Your task to perform on an android device: empty trash in google photos Image 0: 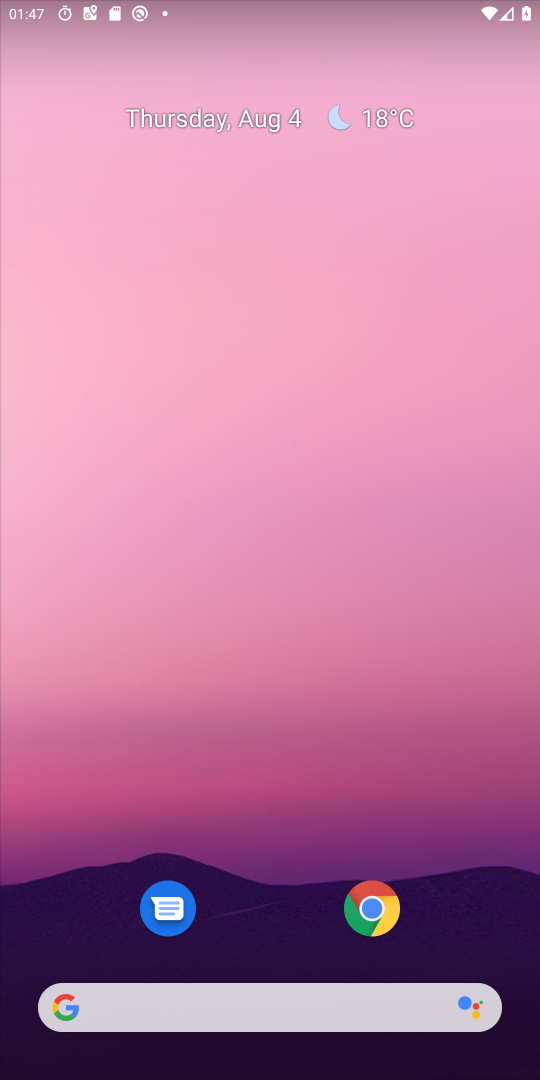
Step 0: press home button
Your task to perform on an android device: empty trash in google photos Image 1: 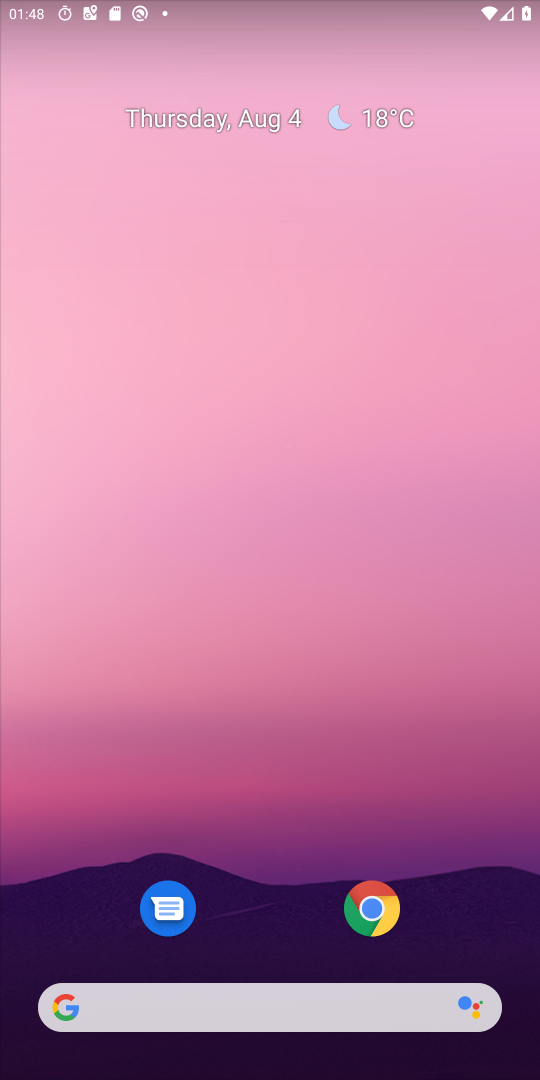
Step 1: drag from (355, 1019) to (358, 219)
Your task to perform on an android device: empty trash in google photos Image 2: 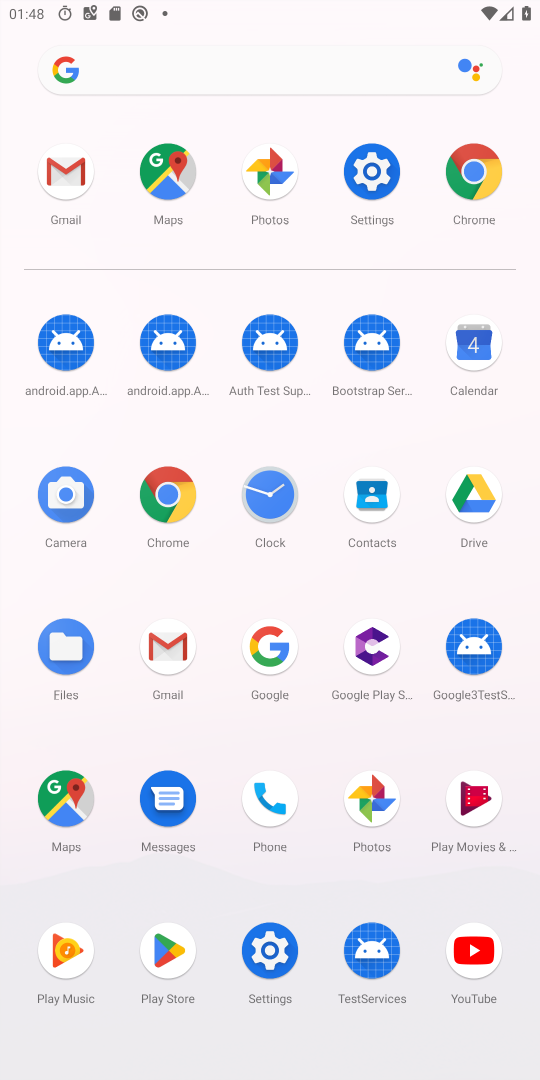
Step 2: click (376, 821)
Your task to perform on an android device: empty trash in google photos Image 3: 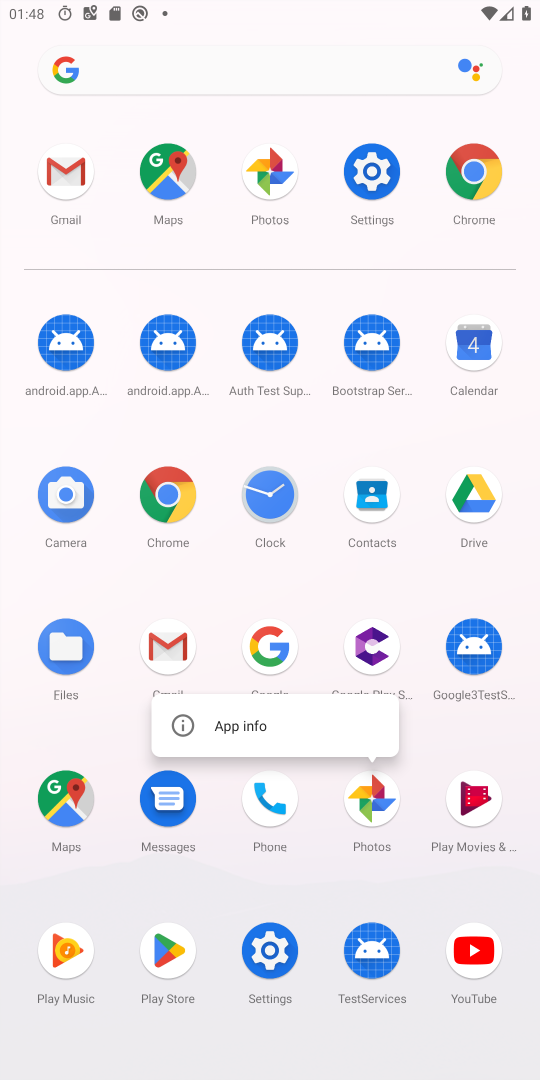
Step 3: click (382, 822)
Your task to perform on an android device: empty trash in google photos Image 4: 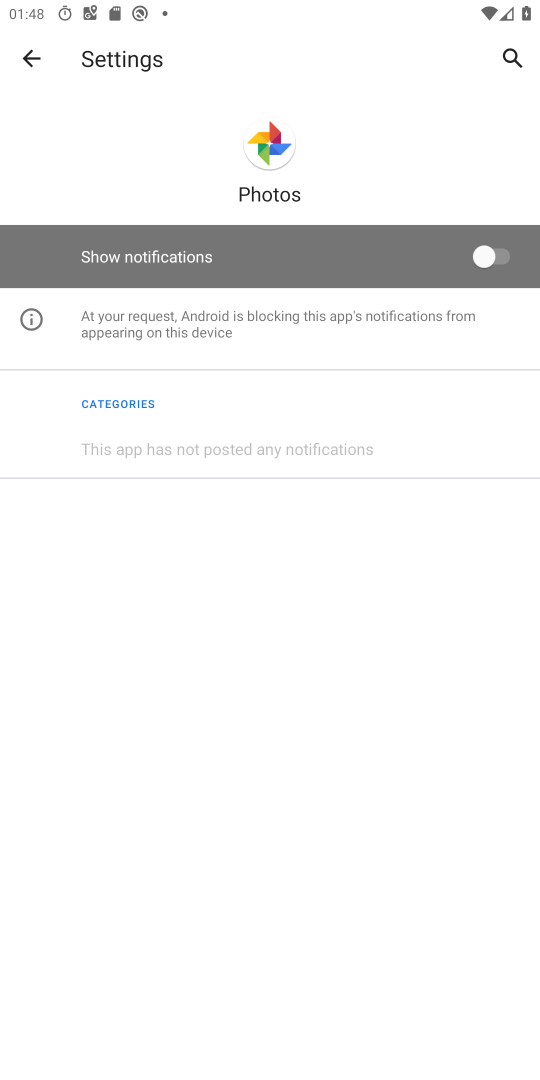
Step 4: click (13, 56)
Your task to perform on an android device: empty trash in google photos Image 5: 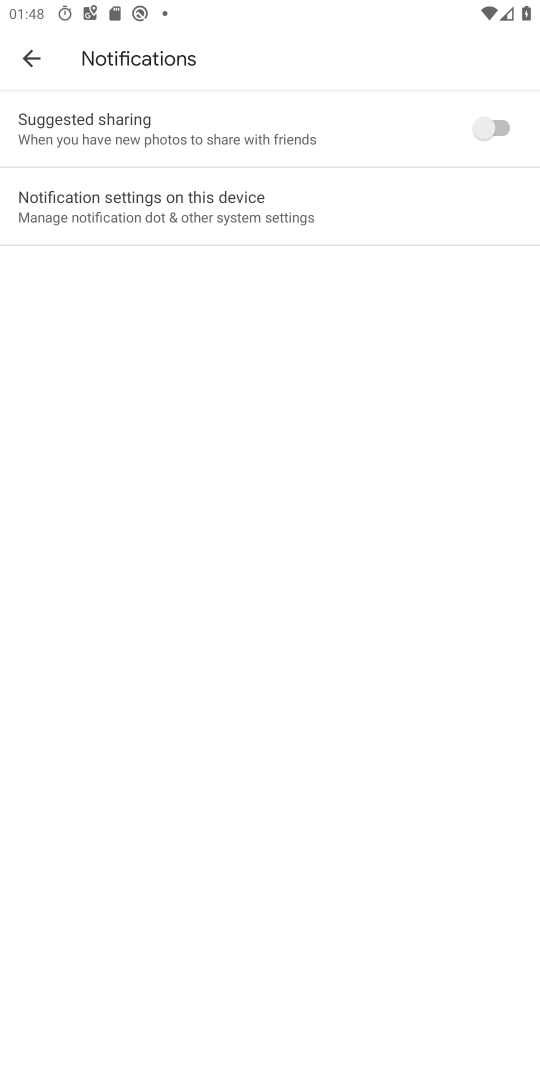
Step 5: click (25, 62)
Your task to perform on an android device: empty trash in google photos Image 6: 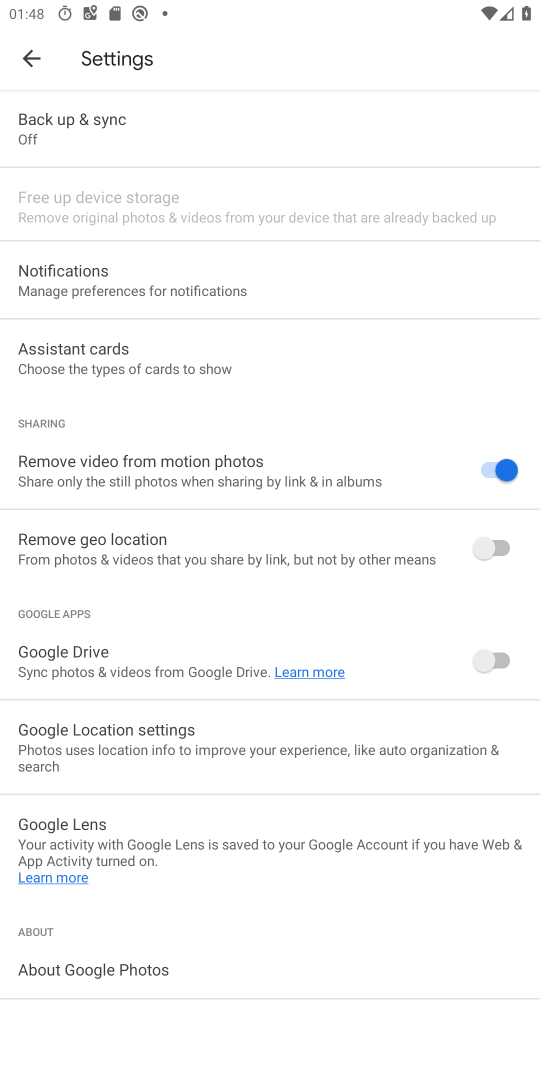
Step 6: click (33, 66)
Your task to perform on an android device: empty trash in google photos Image 7: 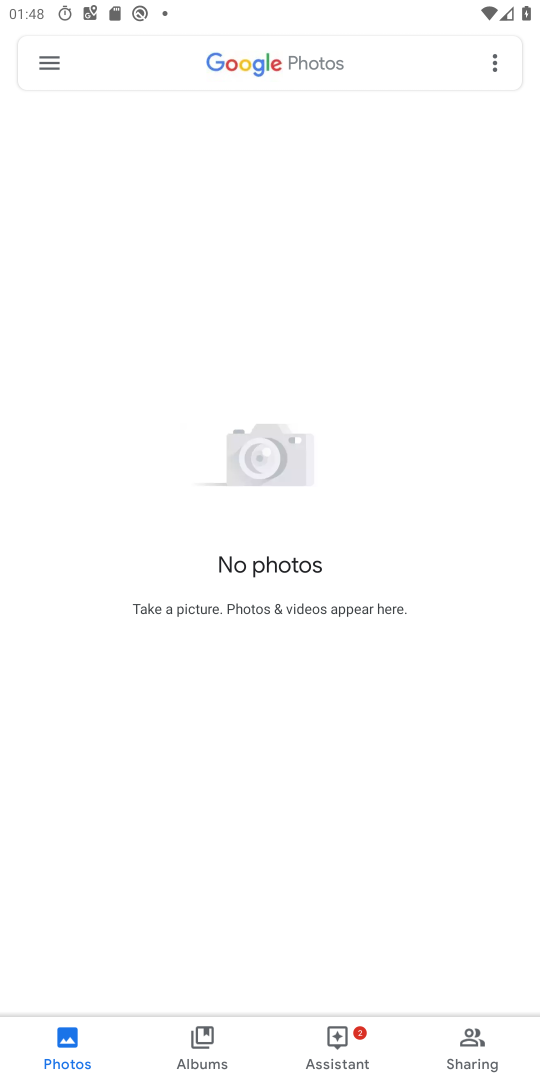
Step 7: click (49, 70)
Your task to perform on an android device: empty trash in google photos Image 8: 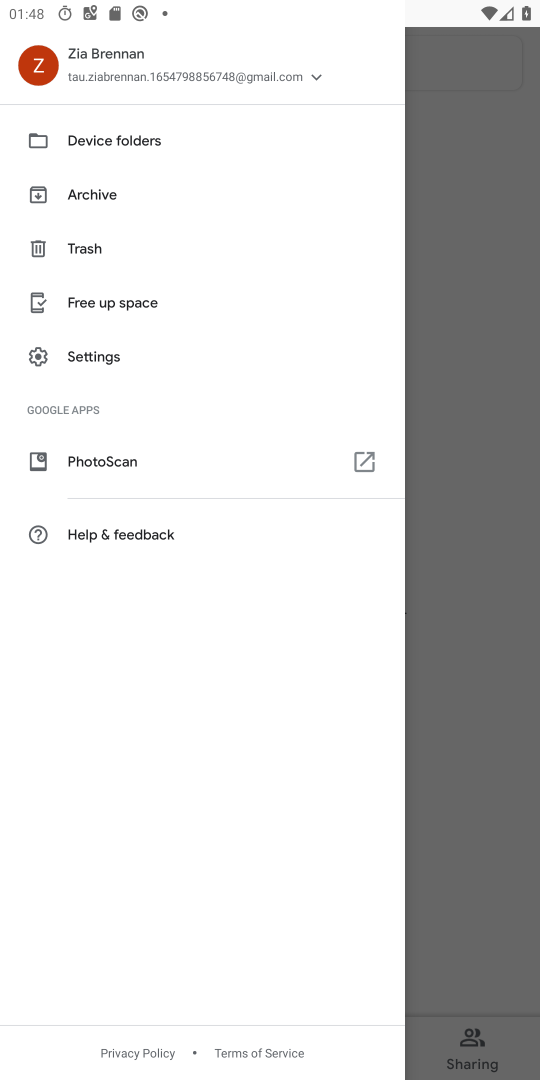
Step 8: click (116, 258)
Your task to perform on an android device: empty trash in google photos Image 9: 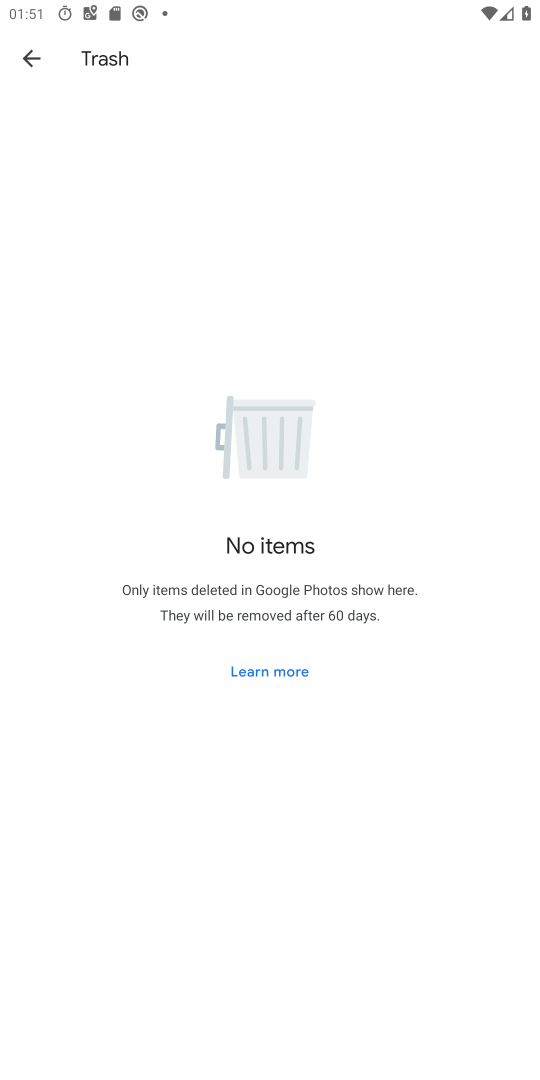
Step 9: task complete